Your task to perform on an android device: Open Chrome and go to settings Image 0: 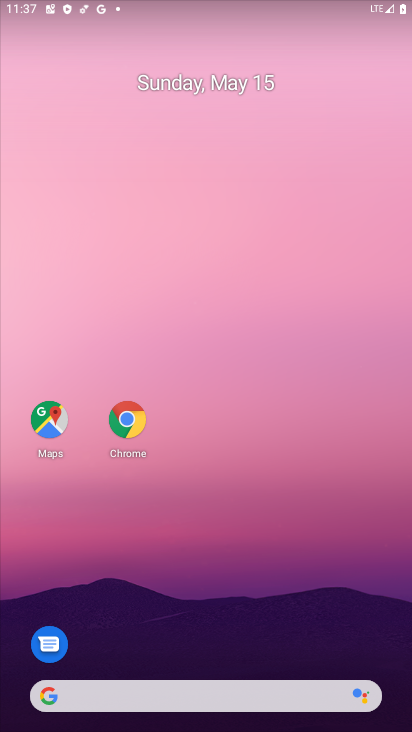
Step 0: click (326, 144)
Your task to perform on an android device: Open Chrome and go to settings Image 1: 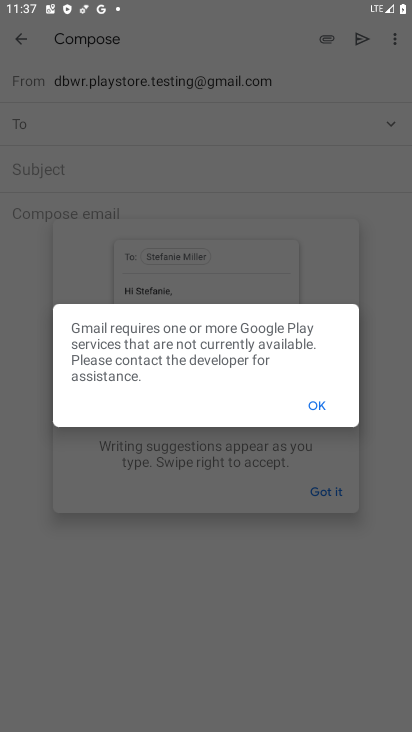
Step 1: press home button
Your task to perform on an android device: Open Chrome and go to settings Image 2: 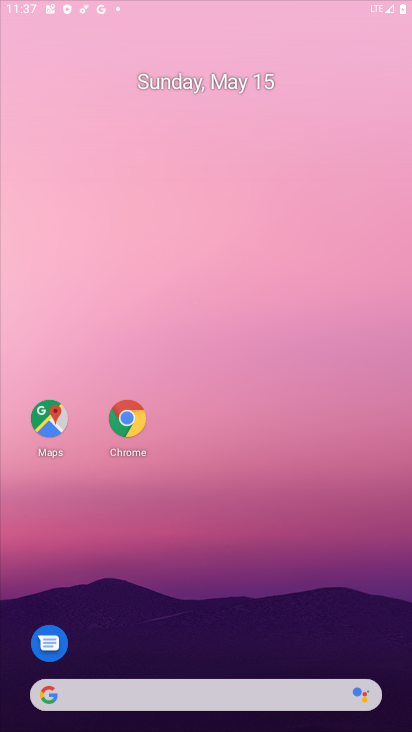
Step 2: drag from (270, 641) to (292, 96)
Your task to perform on an android device: Open Chrome and go to settings Image 3: 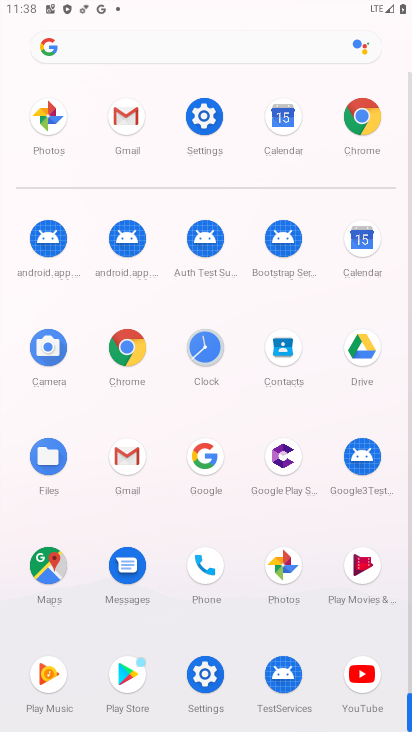
Step 3: click (368, 114)
Your task to perform on an android device: Open Chrome and go to settings Image 4: 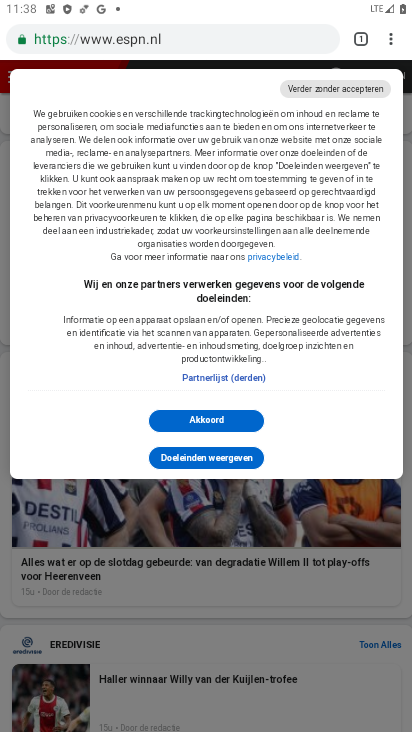
Step 4: task complete